Your task to perform on an android device: add a contact Image 0: 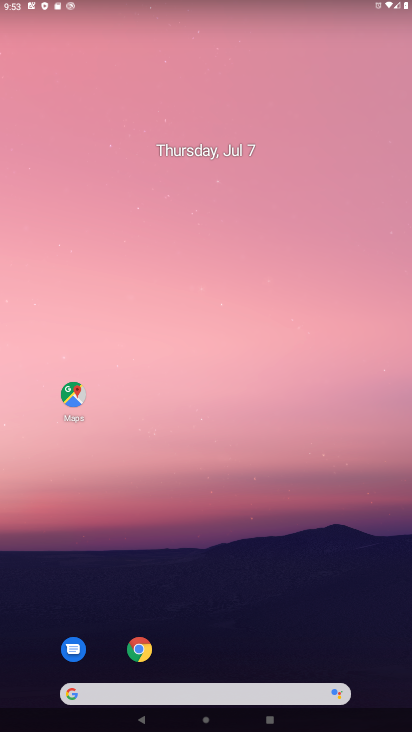
Step 0: drag from (235, 727) to (192, 123)
Your task to perform on an android device: add a contact Image 1: 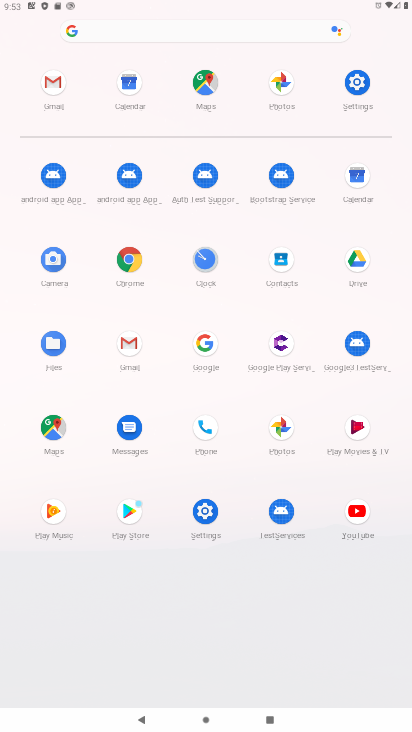
Step 1: click (283, 256)
Your task to perform on an android device: add a contact Image 2: 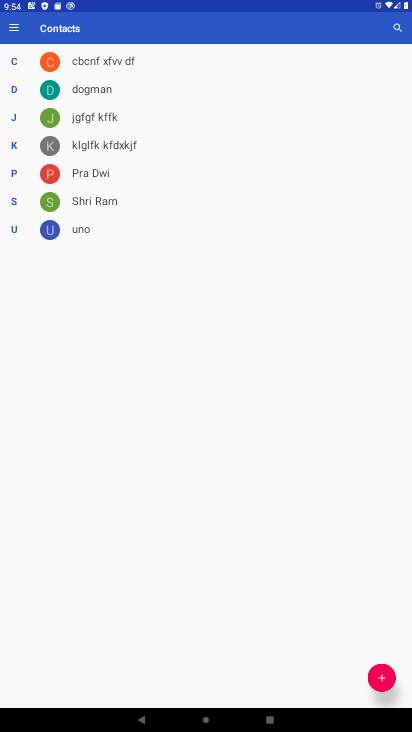
Step 2: click (383, 682)
Your task to perform on an android device: add a contact Image 3: 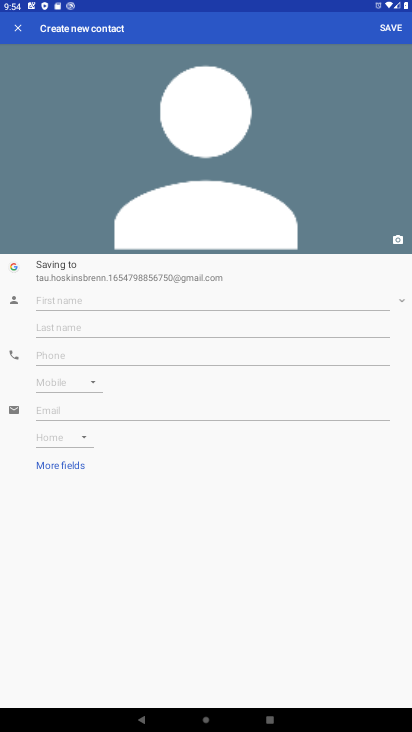
Step 3: click (134, 299)
Your task to perform on an android device: add a contact Image 4: 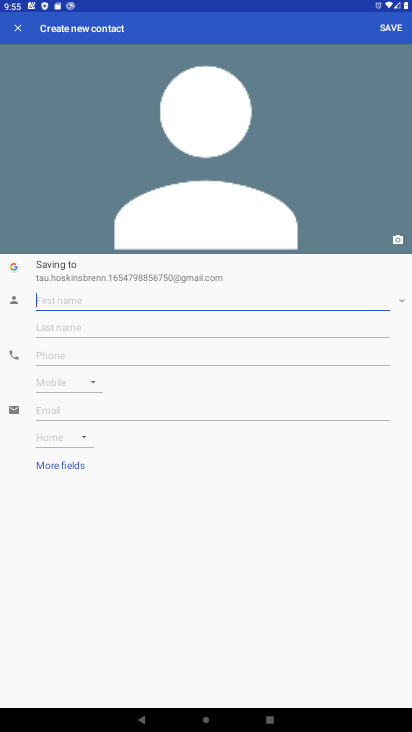
Step 4: type "Wendigo"
Your task to perform on an android device: add a contact Image 5: 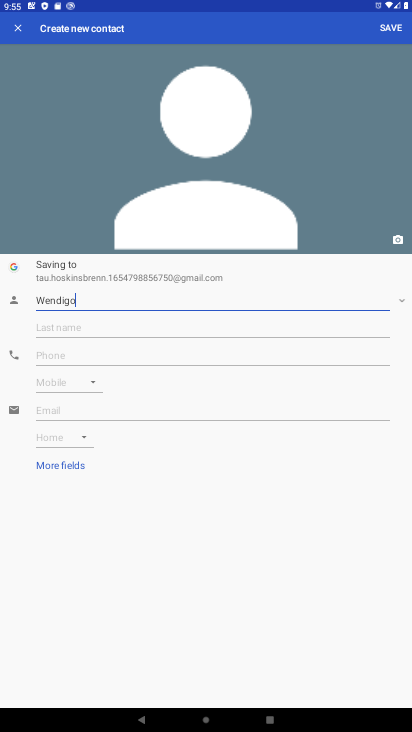
Step 5: type ""
Your task to perform on an android device: add a contact Image 6: 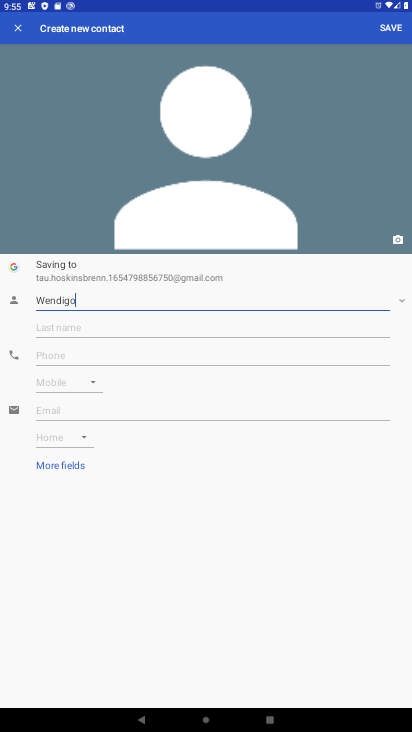
Step 6: click (75, 354)
Your task to perform on an android device: add a contact Image 7: 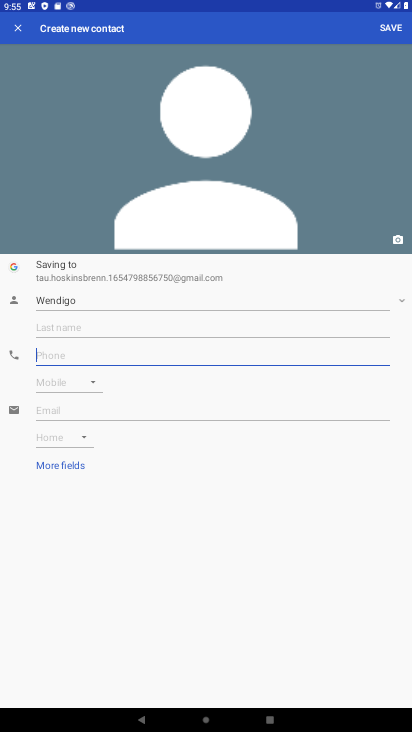
Step 7: type "7777"
Your task to perform on an android device: add a contact Image 8: 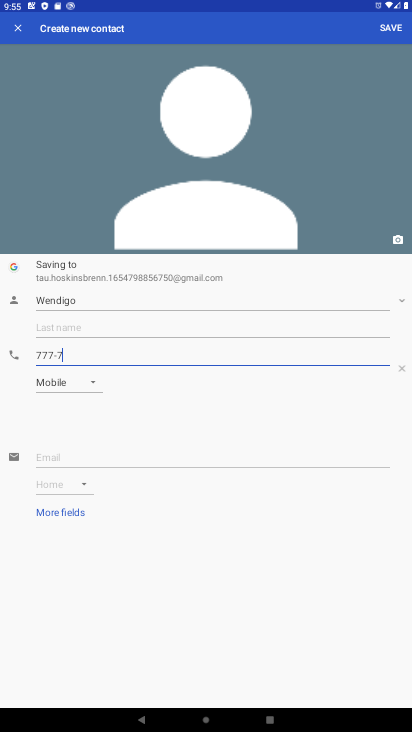
Step 8: type ""
Your task to perform on an android device: add a contact Image 9: 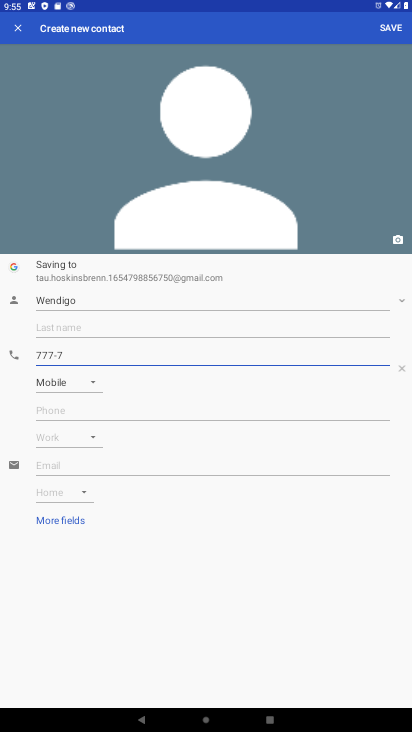
Step 9: click (393, 29)
Your task to perform on an android device: add a contact Image 10: 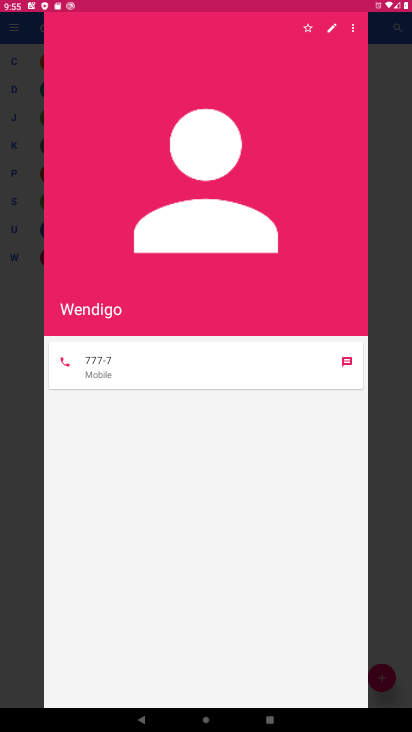
Step 10: task complete